Your task to perform on an android device: create a new album in the google photos Image 0: 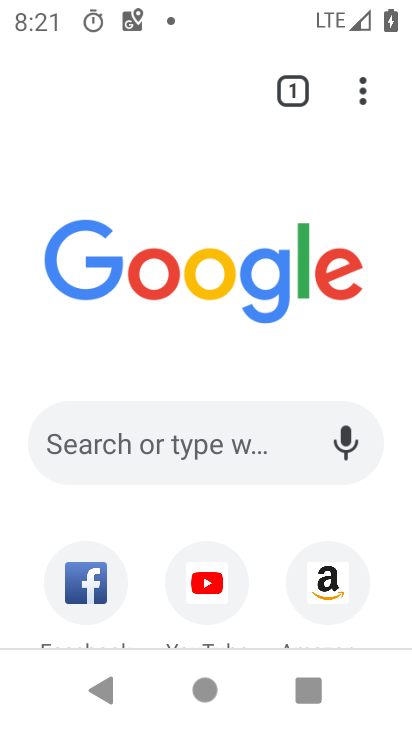
Step 0: click (259, 330)
Your task to perform on an android device: create a new album in the google photos Image 1: 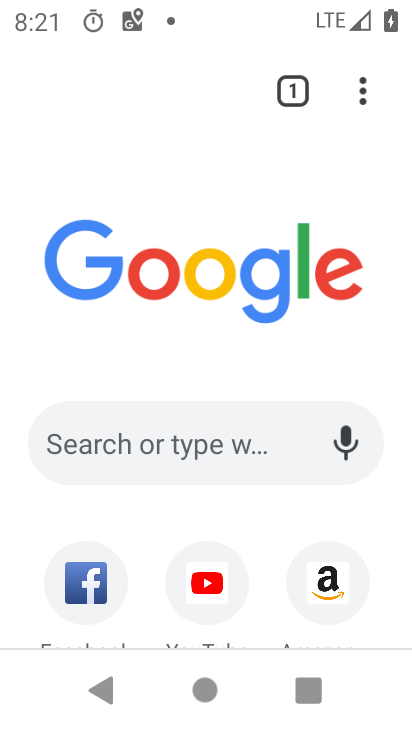
Step 1: drag from (169, 522) to (234, 205)
Your task to perform on an android device: create a new album in the google photos Image 2: 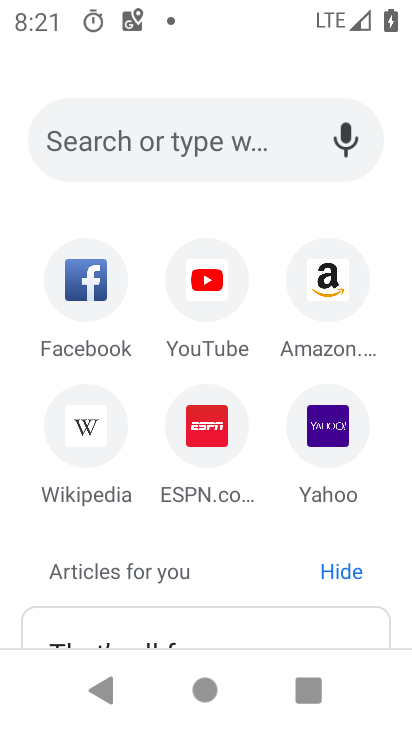
Step 2: drag from (256, 434) to (256, 322)
Your task to perform on an android device: create a new album in the google photos Image 3: 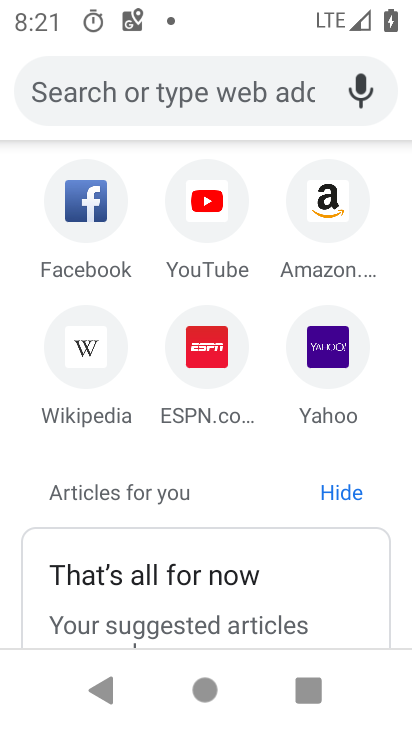
Step 3: drag from (259, 238) to (288, 529)
Your task to perform on an android device: create a new album in the google photos Image 4: 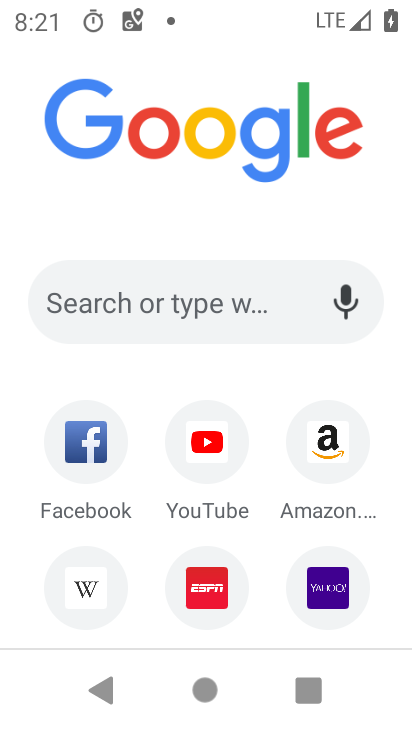
Step 4: press home button
Your task to perform on an android device: create a new album in the google photos Image 5: 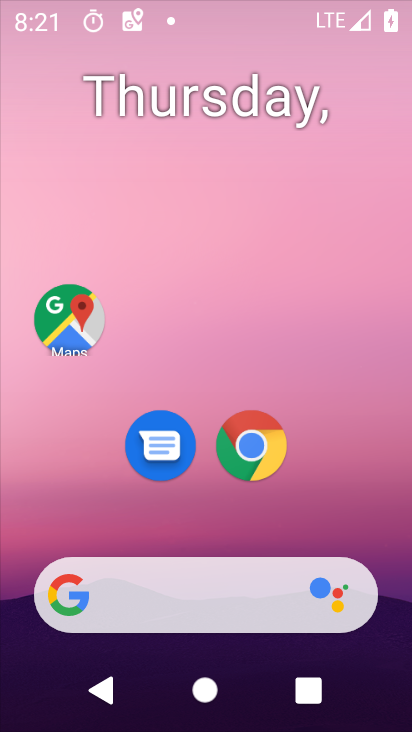
Step 5: drag from (178, 555) to (215, 210)
Your task to perform on an android device: create a new album in the google photos Image 6: 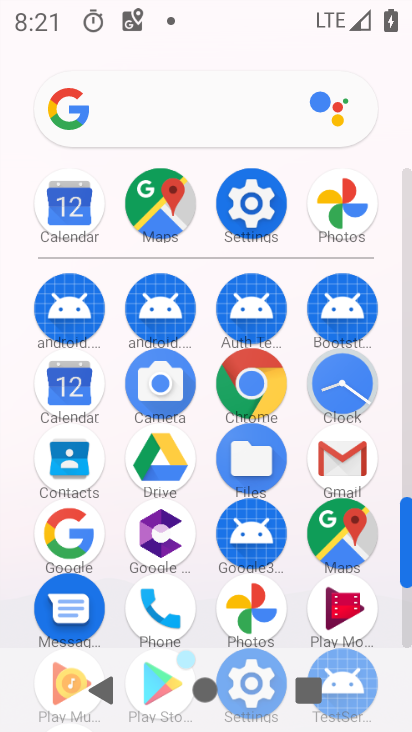
Step 6: drag from (201, 591) to (185, 251)
Your task to perform on an android device: create a new album in the google photos Image 7: 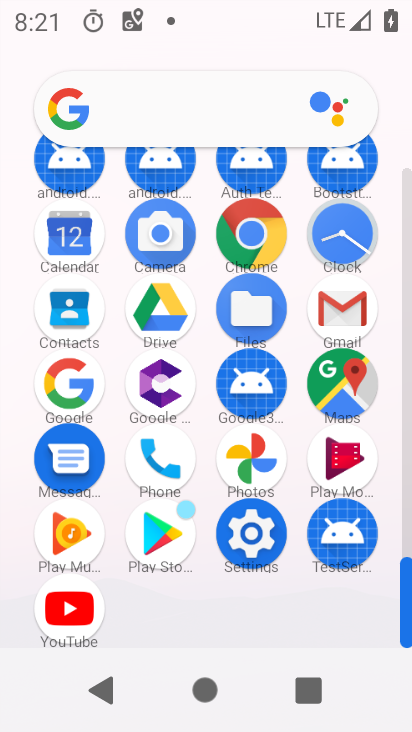
Step 7: click (238, 479)
Your task to perform on an android device: create a new album in the google photos Image 8: 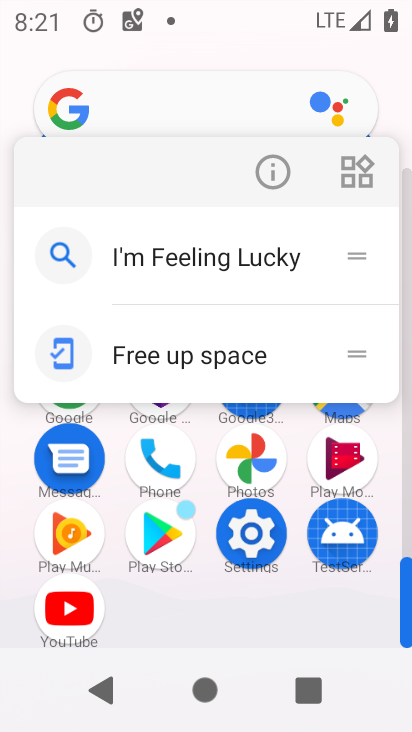
Step 8: click (261, 164)
Your task to perform on an android device: create a new album in the google photos Image 9: 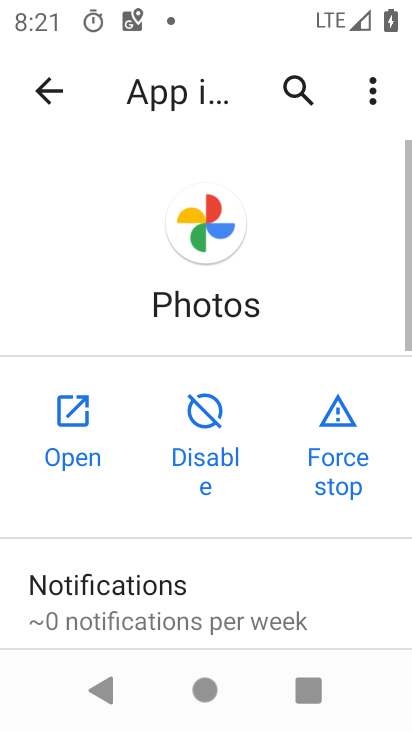
Step 9: click (84, 417)
Your task to perform on an android device: create a new album in the google photos Image 10: 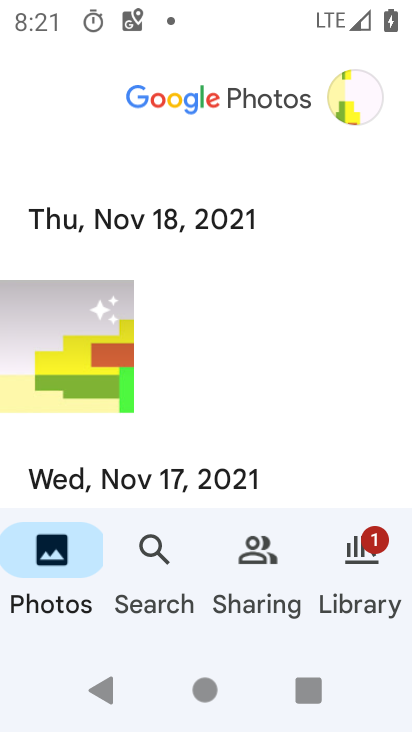
Step 10: drag from (197, 415) to (279, 150)
Your task to perform on an android device: create a new album in the google photos Image 11: 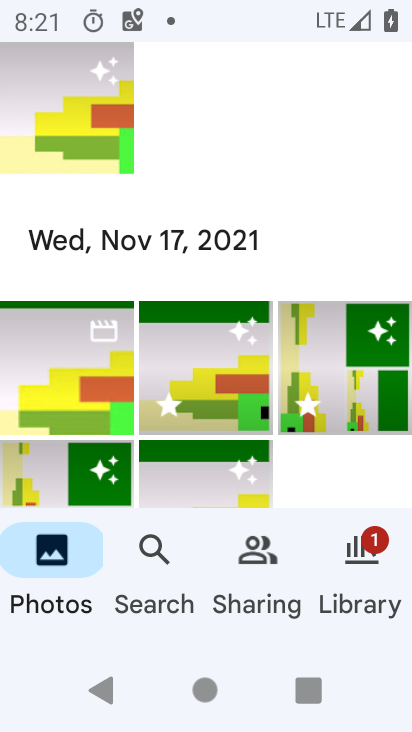
Step 11: drag from (214, 421) to (239, 219)
Your task to perform on an android device: create a new album in the google photos Image 12: 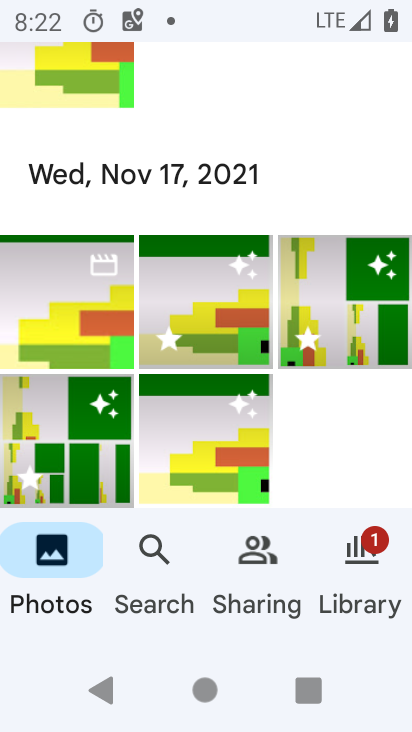
Step 12: click (75, 311)
Your task to perform on an android device: create a new album in the google photos Image 13: 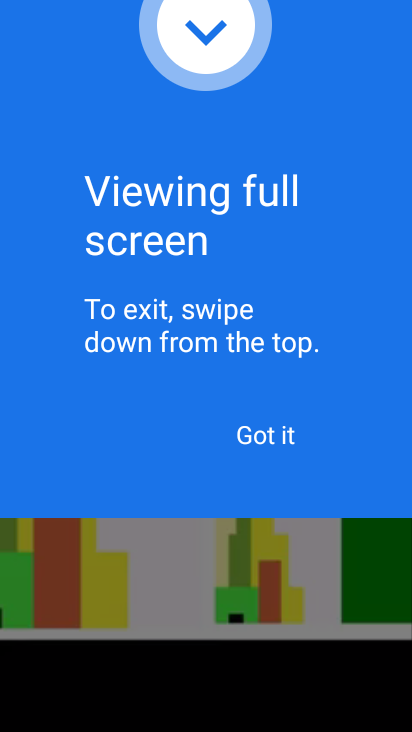
Step 13: press back button
Your task to perform on an android device: create a new album in the google photos Image 14: 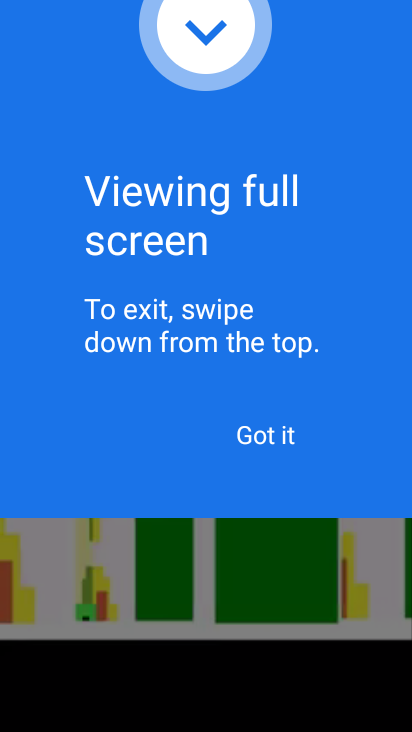
Step 14: drag from (220, 466) to (291, 170)
Your task to perform on an android device: create a new album in the google photos Image 15: 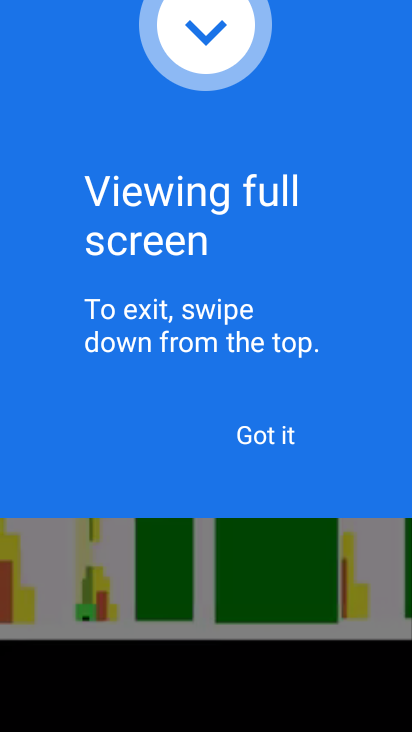
Step 15: click (254, 428)
Your task to perform on an android device: create a new album in the google photos Image 16: 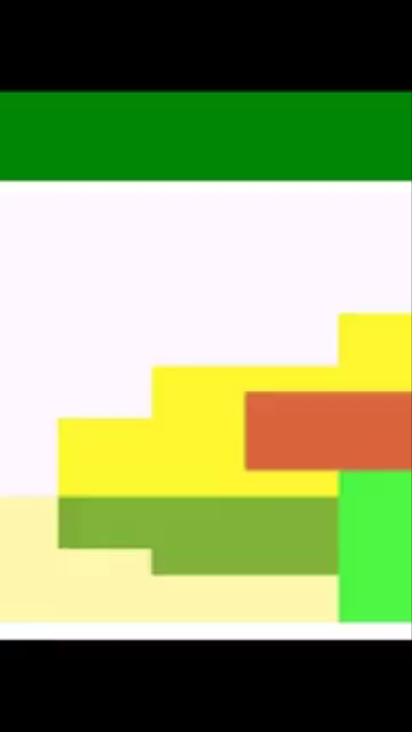
Step 16: drag from (293, 388) to (405, 630)
Your task to perform on an android device: create a new album in the google photos Image 17: 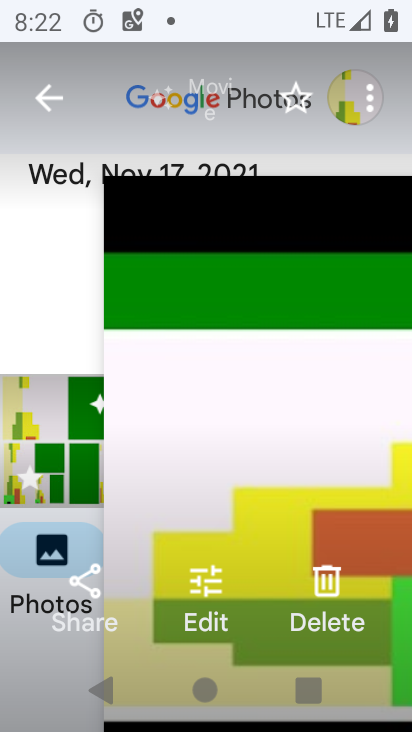
Step 17: press back button
Your task to perform on an android device: create a new album in the google photos Image 18: 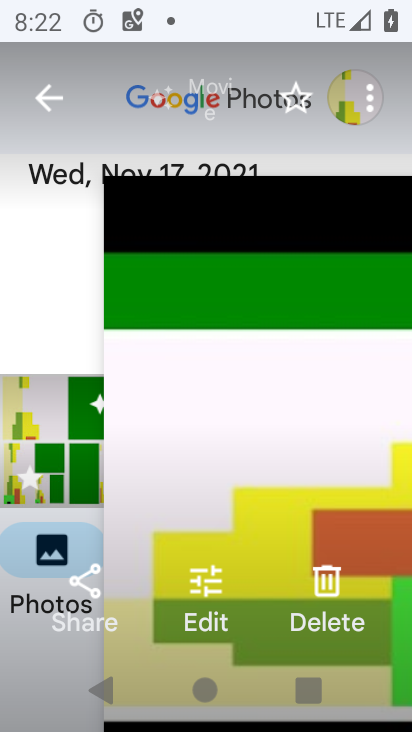
Step 18: drag from (405, 630) to (402, 208)
Your task to perform on an android device: create a new album in the google photos Image 19: 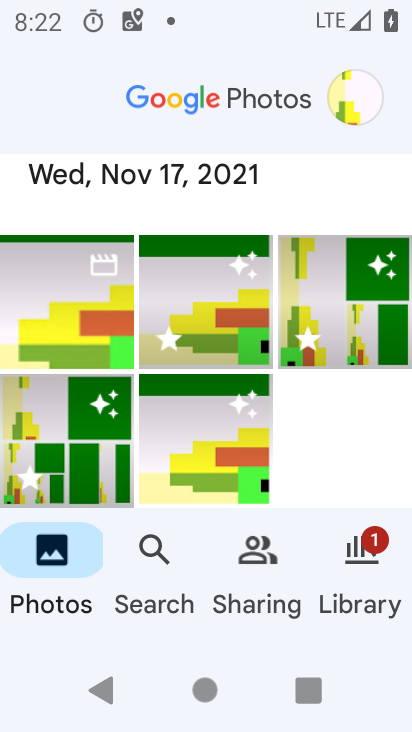
Step 19: click (349, 560)
Your task to perform on an android device: create a new album in the google photos Image 20: 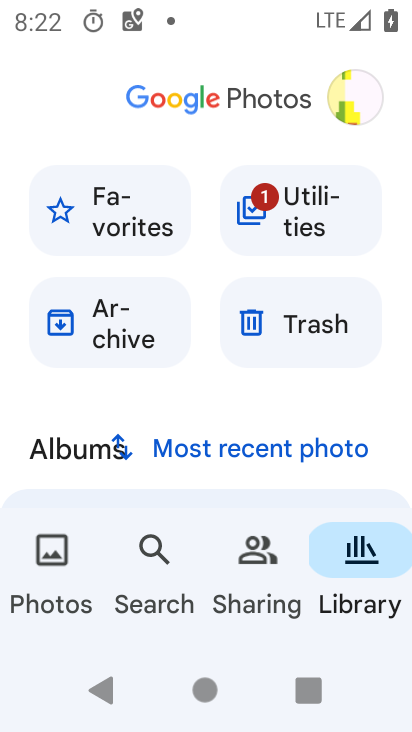
Step 20: drag from (200, 412) to (240, 185)
Your task to perform on an android device: create a new album in the google photos Image 21: 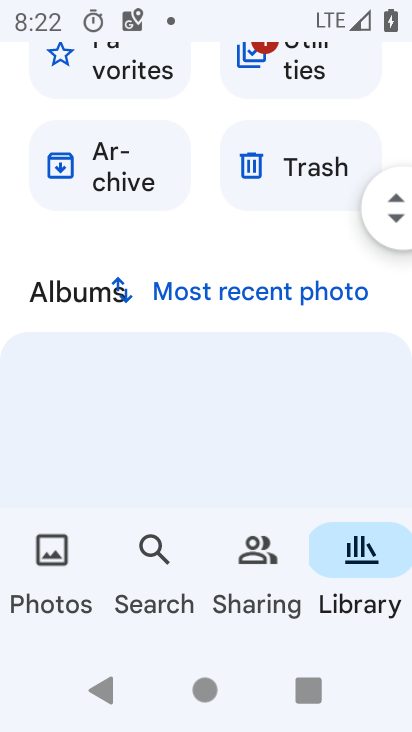
Step 21: drag from (235, 374) to (256, 126)
Your task to perform on an android device: create a new album in the google photos Image 22: 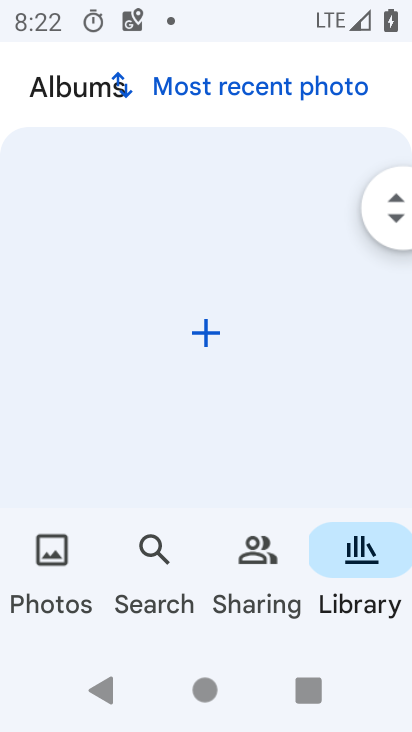
Step 22: click (208, 319)
Your task to perform on an android device: create a new album in the google photos Image 23: 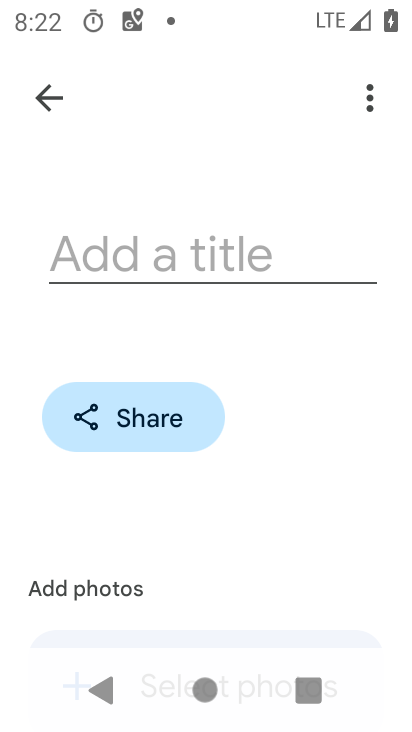
Step 23: click (190, 274)
Your task to perform on an android device: create a new album in the google photos Image 24: 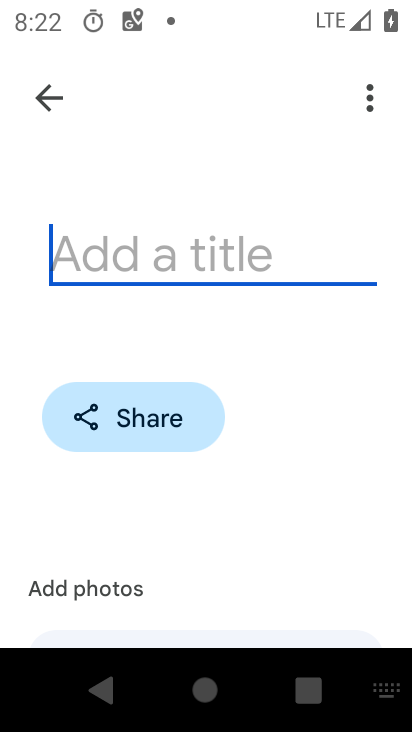
Step 24: type "mhjjk"
Your task to perform on an android device: create a new album in the google photos Image 25: 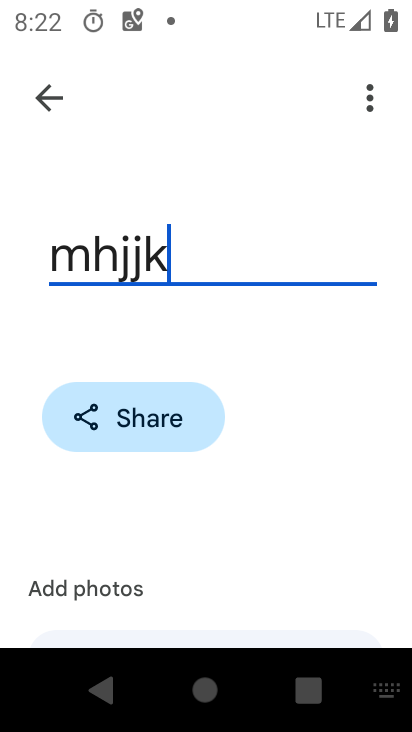
Step 25: drag from (220, 511) to (228, 226)
Your task to perform on an android device: create a new album in the google photos Image 26: 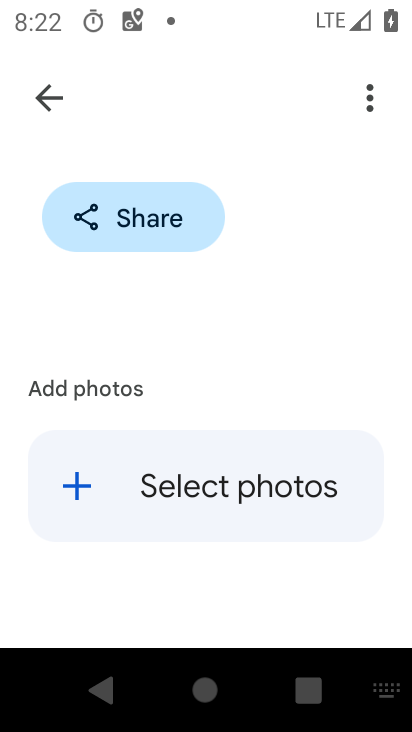
Step 26: click (88, 479)
Your task to perform on an android device: create a new album in the google photos Image 27: 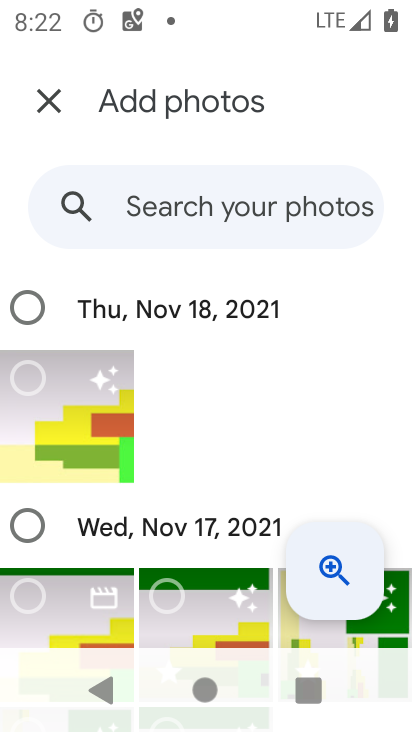
Step 27: click (55, 403)
Your task to perform on an android device: create a new album in the google photos Image 28: 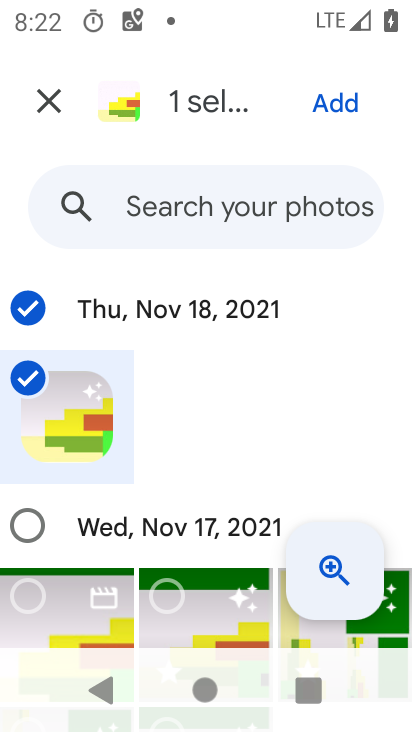
Step 28: click (52, 603)
Your task to perform on an android device: create a new album in the google photos Image 29: 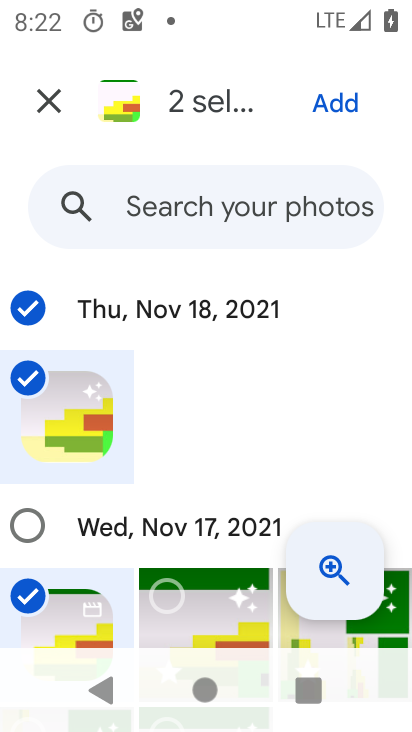
Step 29: click (167, 605)
Your task to perform on an android device: create a new album in the google photos Image 30: 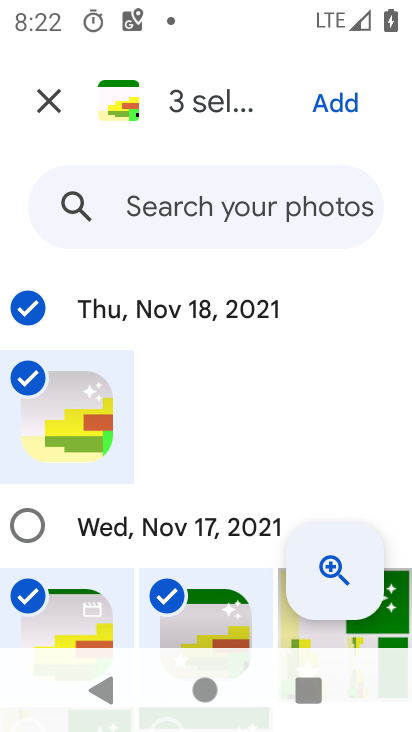
Step 30: click (347, 113)
Your task to perform on an android device: create a new album in the google photos Image 31: 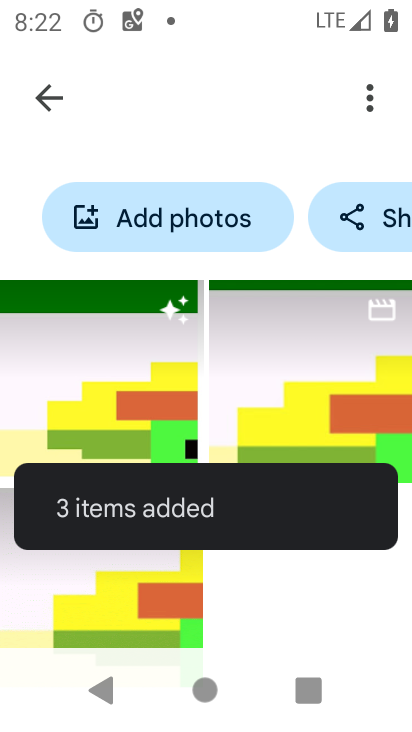
Step 31: task complete